Your task to perform on an android device: Go to Google Image 0: 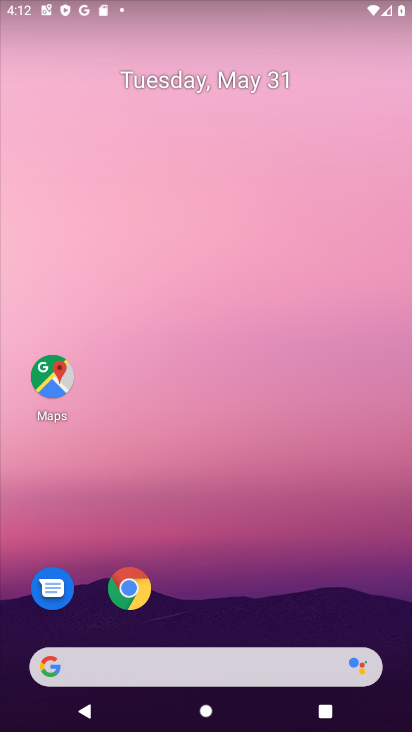
Step 0: click (121, 661)
Your task to perform on an android device: Go to Google Image 1: 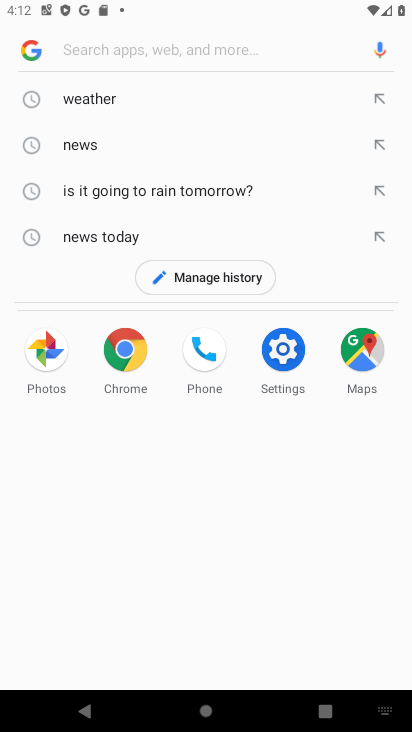
Step 1: task complete